Your task to perform on an android device: Find the nearest electronics store that's open tomorrow Image 0: 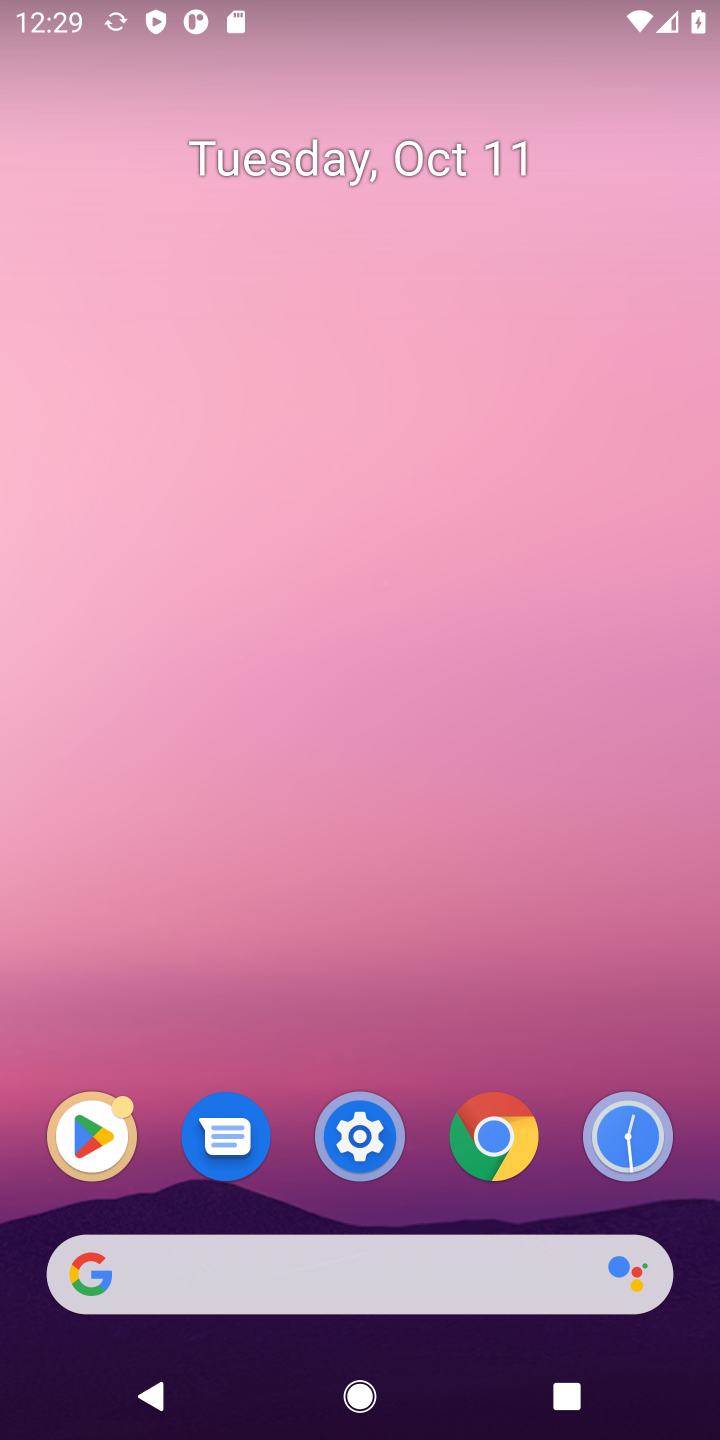
Step 0: click (143, 1270)
Your task to perform on an android device: Find the nearest electronics store that's open tomorrow Image 1: 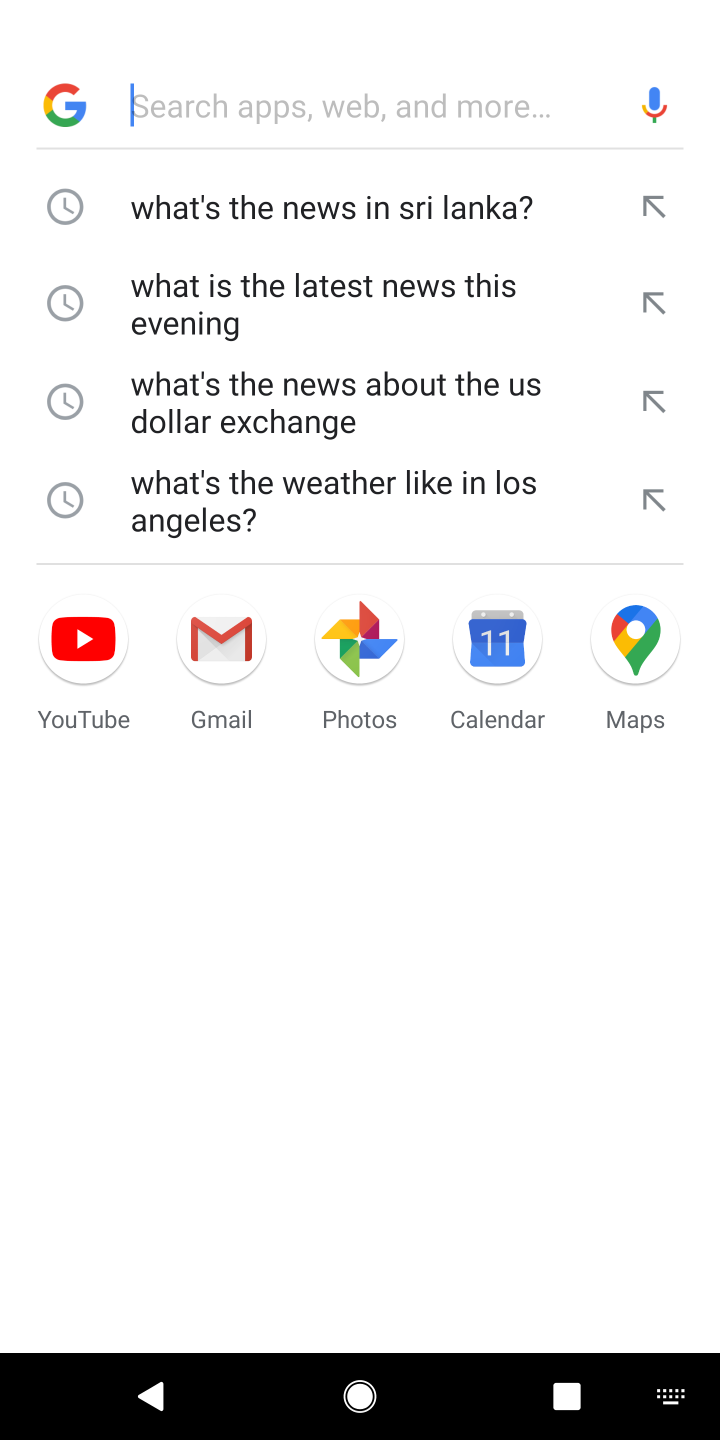
Step 1: type "Find the nearest electronics store that's open tomorrow"
Your task to perform on an android device: Find the nearest electronics store that's open tomorrow Image 2: 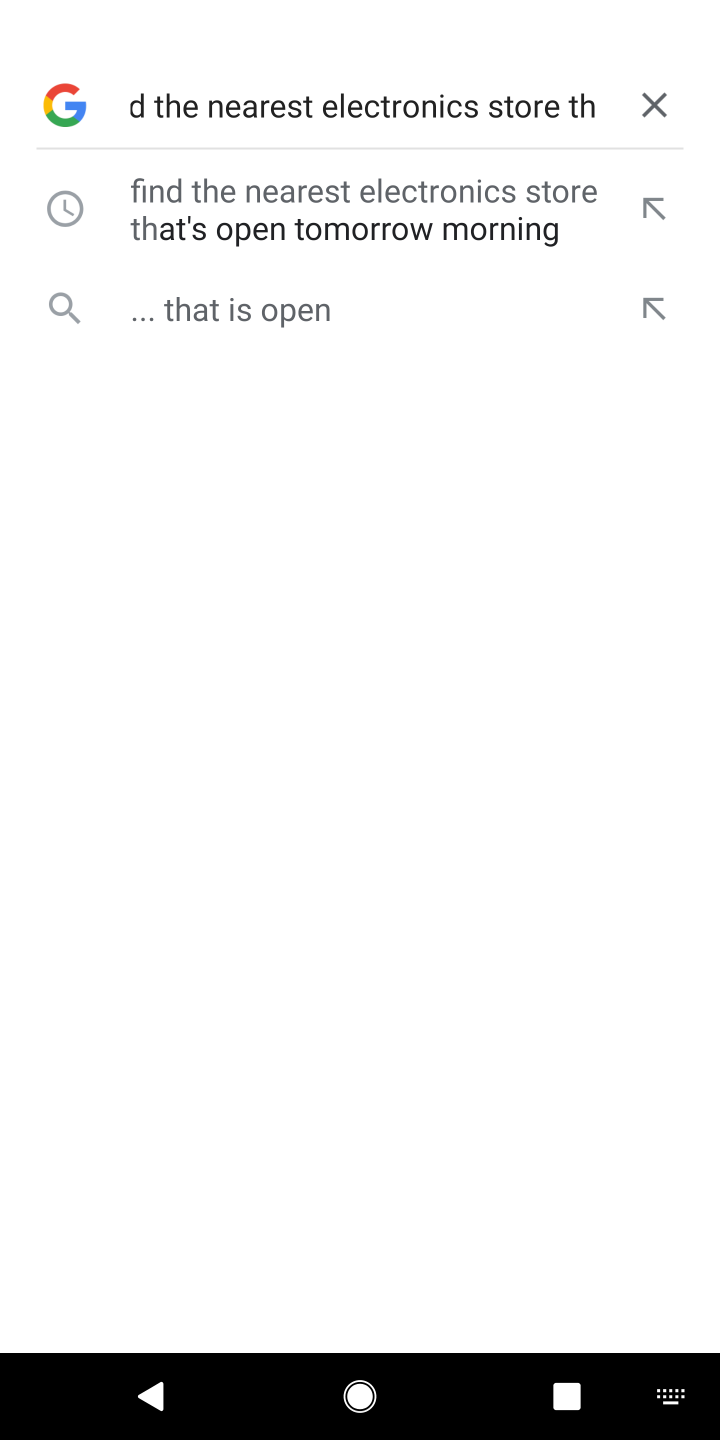
Step 2: press enter
Your task to perform on an android device: Find the nearest electronics store that's open tomorrow Image 3: 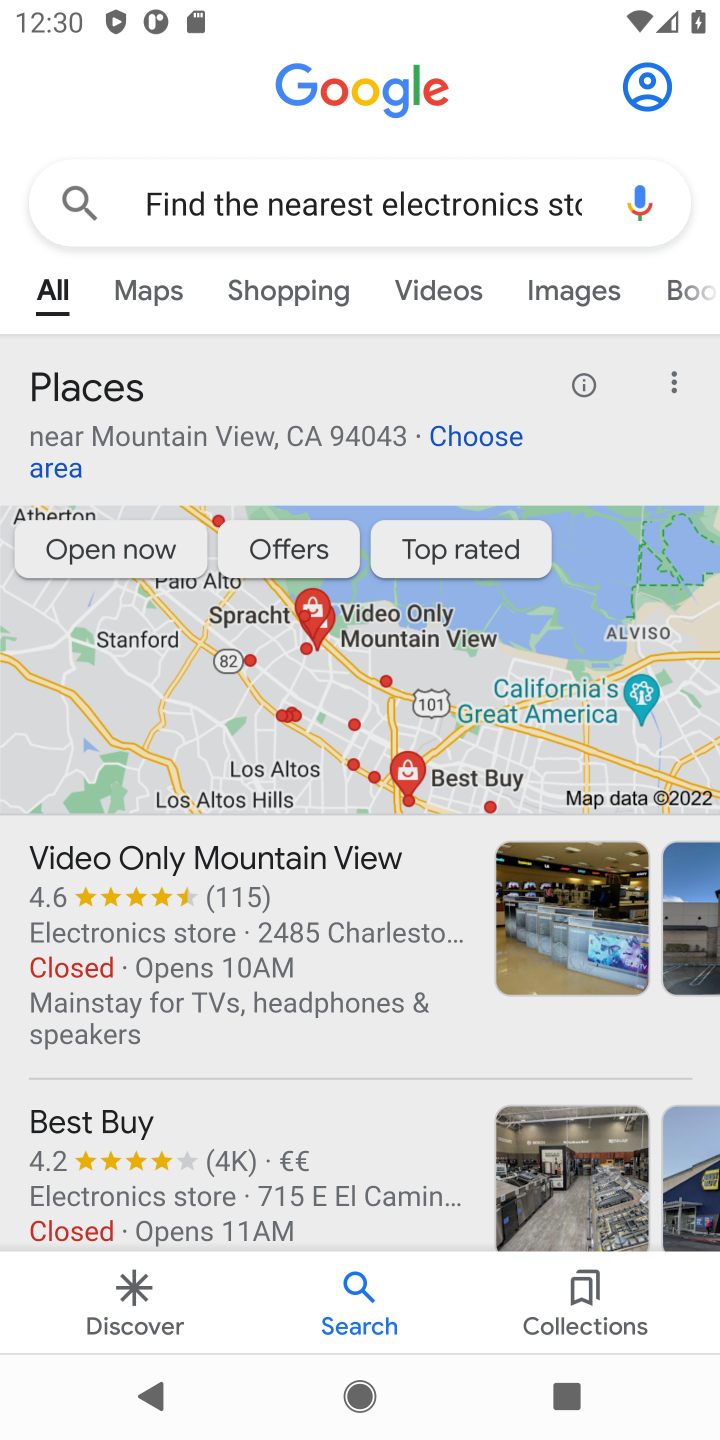
Step 3: drag from (342, 1022) to (360, 898)
Your task to perform on an android device: Find the nearest electronics store that's open tomorrow Image 4: 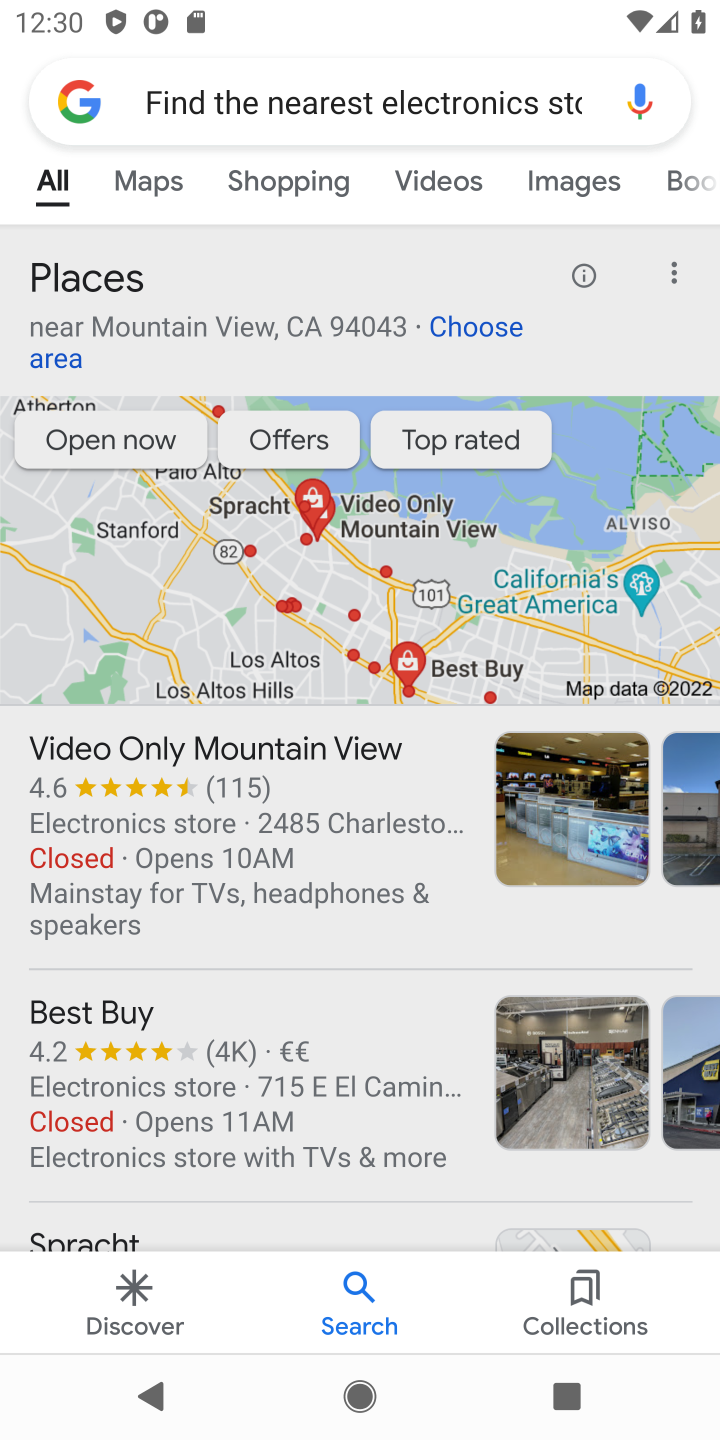
Step 4: drag from (350, 1094) to (384, 771)
Your task to perform on an android device: Find the nearest electronics store that's open tomorrow Image 5: 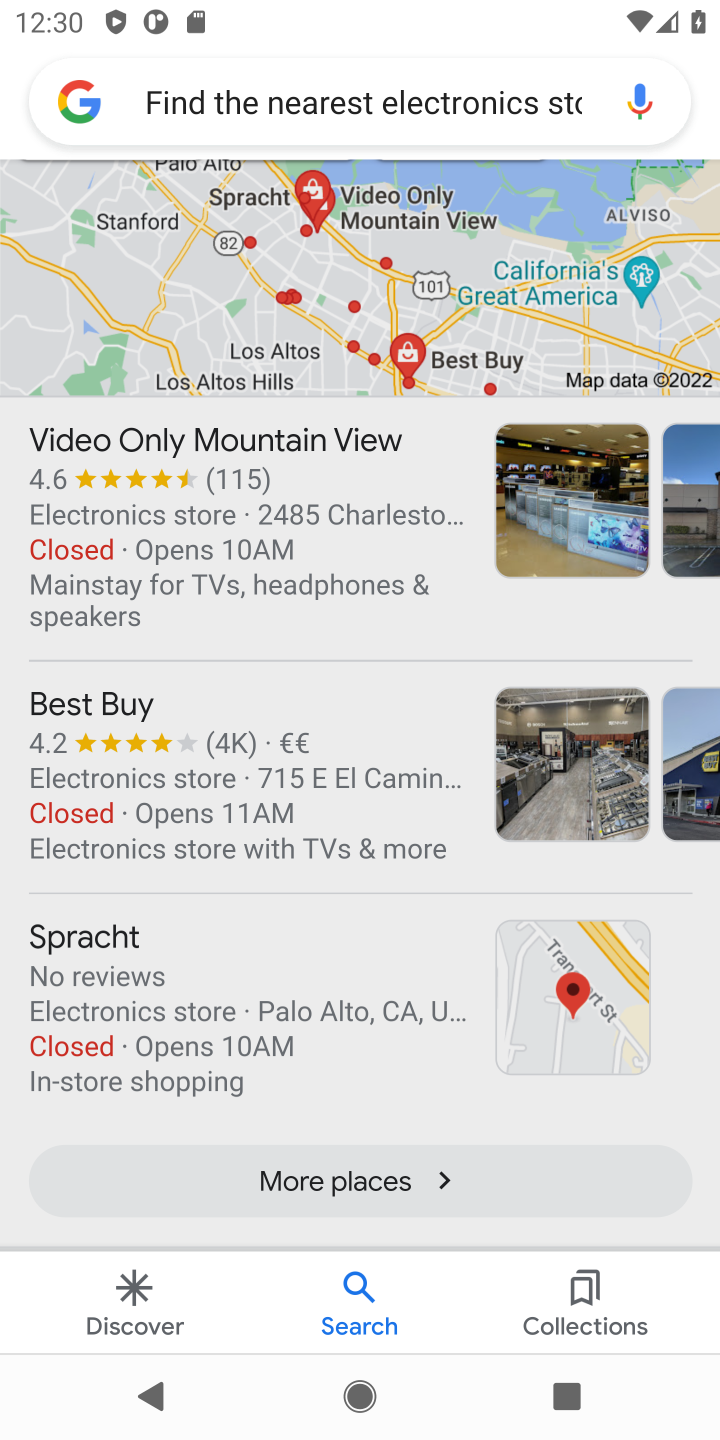
Step 5: drag from (356, 1049) to (350, 670)
Your task to perform on an android device: Find the nearest electronics store that's open tomorrow Image 6: 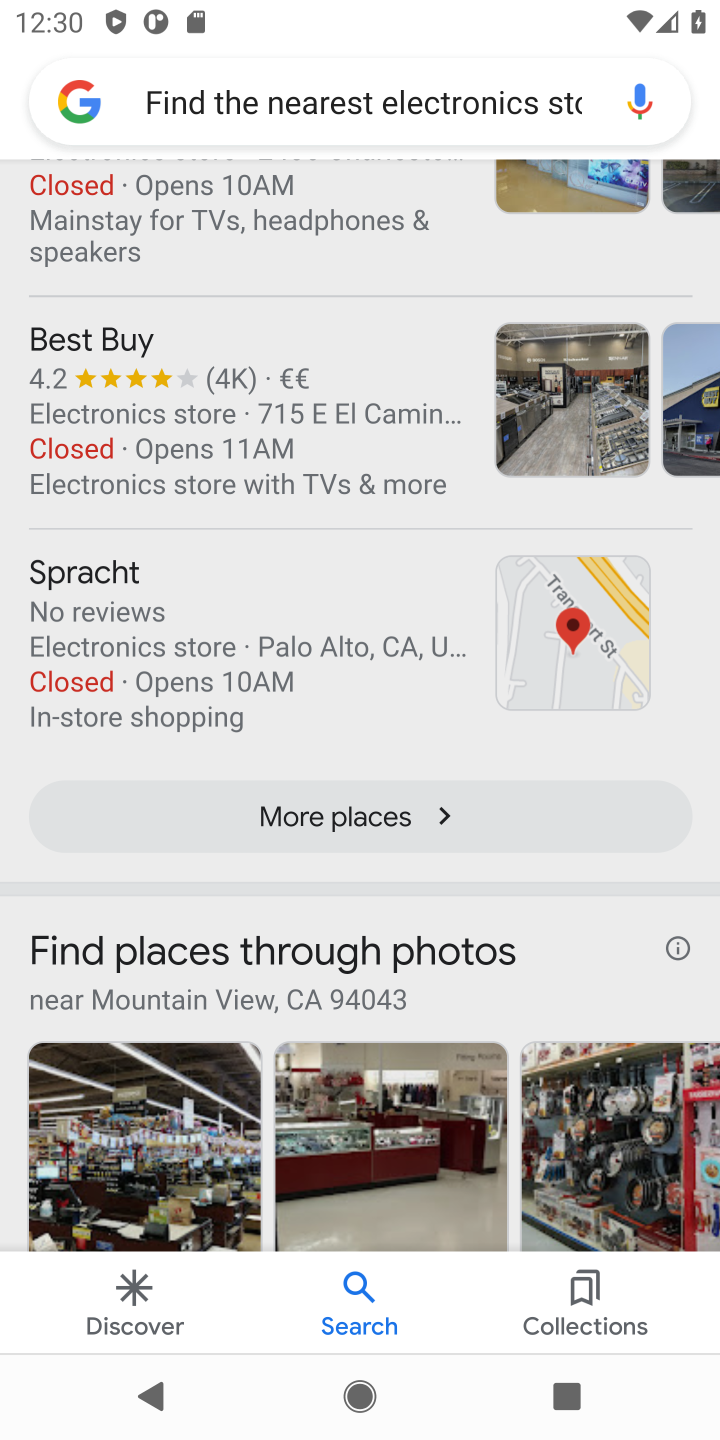
Step 6: click (324, 824)
Your task to perform on an android device: Find the nearest electronics store that's open tomorrow Image 7: 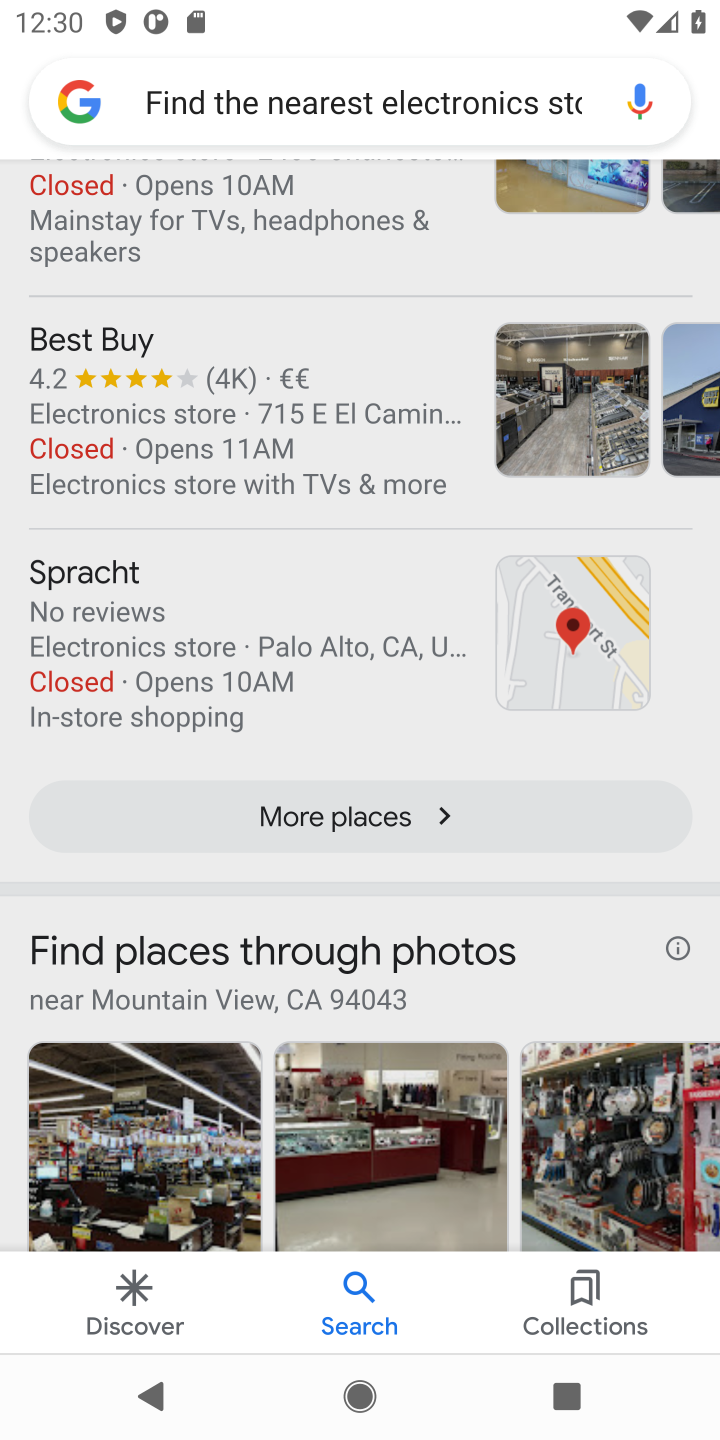
Step 7: click (360, 820)
Your task to perform on an android device: Find the nearest electronics store that's open tomorrow Image 8: 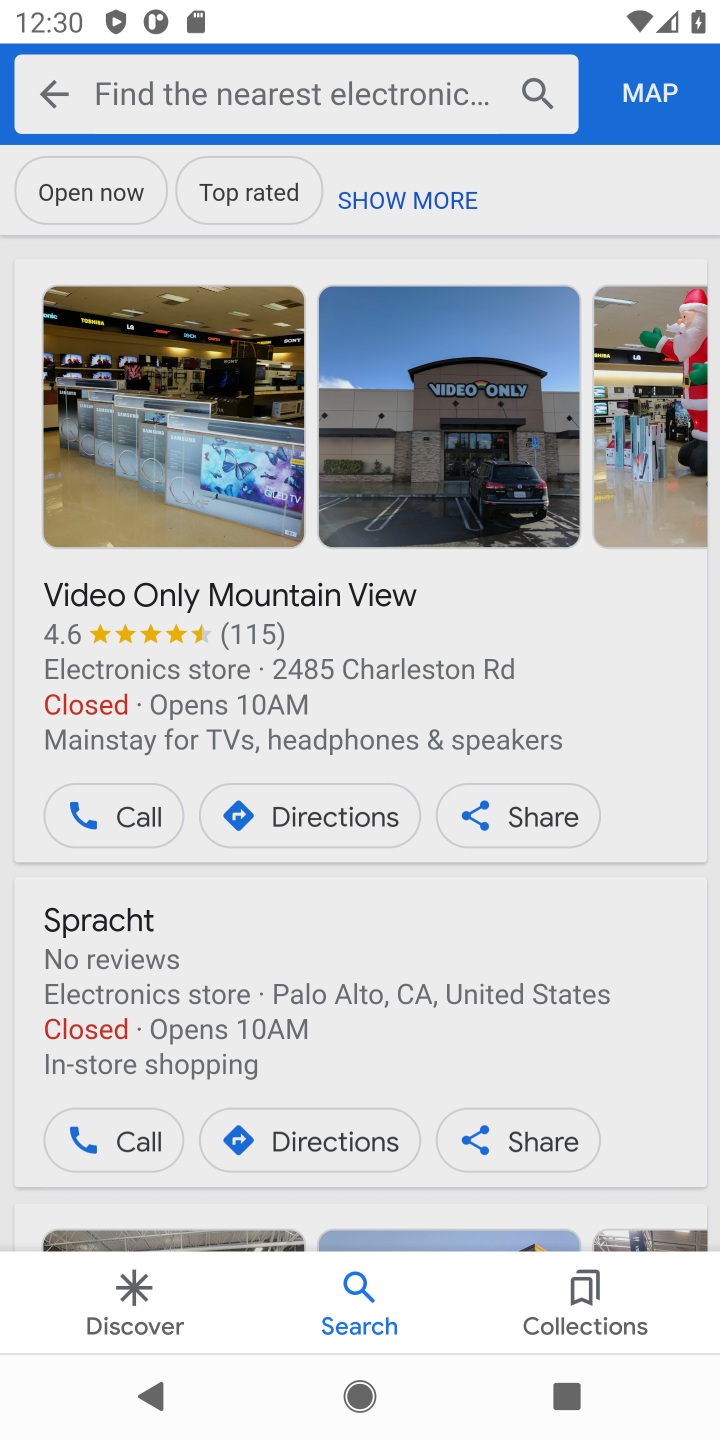
Step 8: task complete